Your task to perform on an android device: delete the emails in spam in the gmail app Image 0: 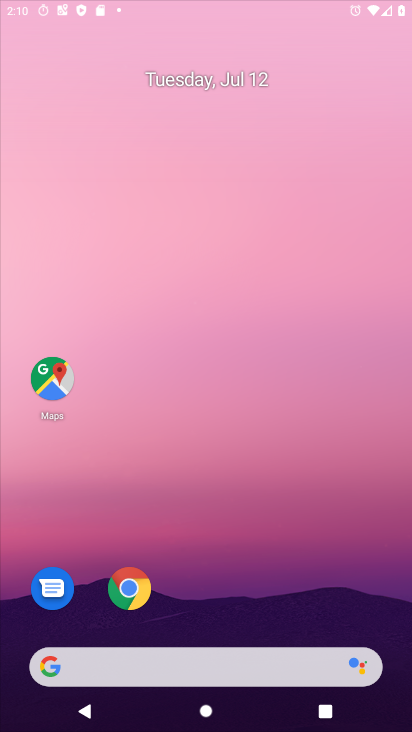
Step 0: drag from (202, 3) to (271, 211)
Your task to perform on an android device: delete the emails in spam in the gmail app Image 1: 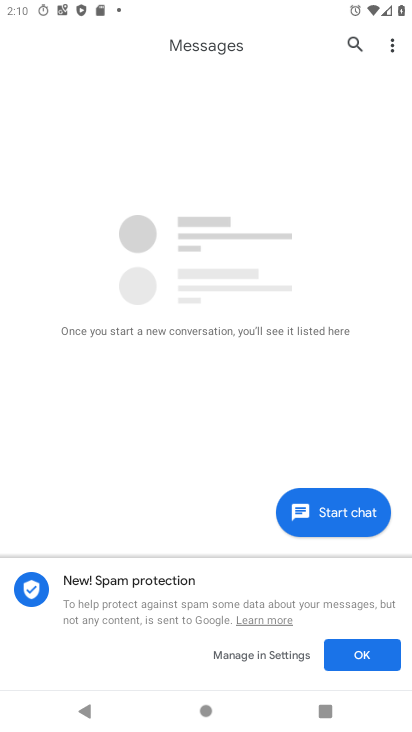
Step 1: press home button
Your task to perform on an android device: delete the emails in spam in the gmail app Image 2: 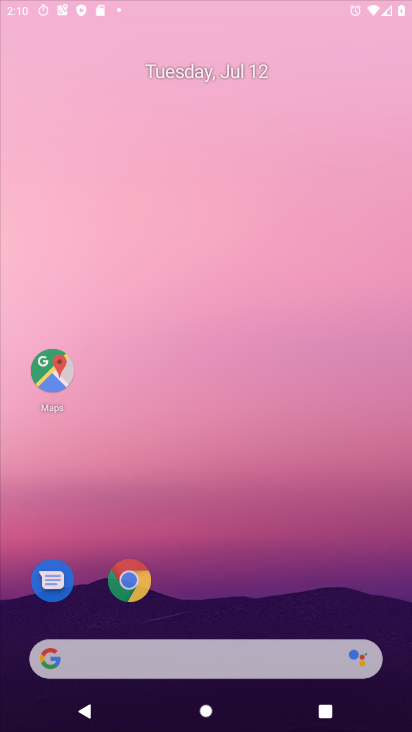
Step 2: drag from (182, 502) to (258, 17)
Your task to perform on an android device: delete the emails in spam in the gmail app Image 3: 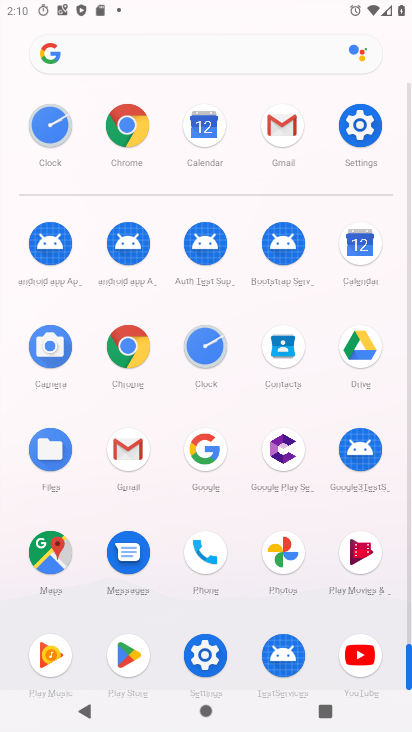
Step 3: drag from (163, 620) to (206, 227)
Your task to perform on an android device: delete the emails in spam in the gmail app Image 4: 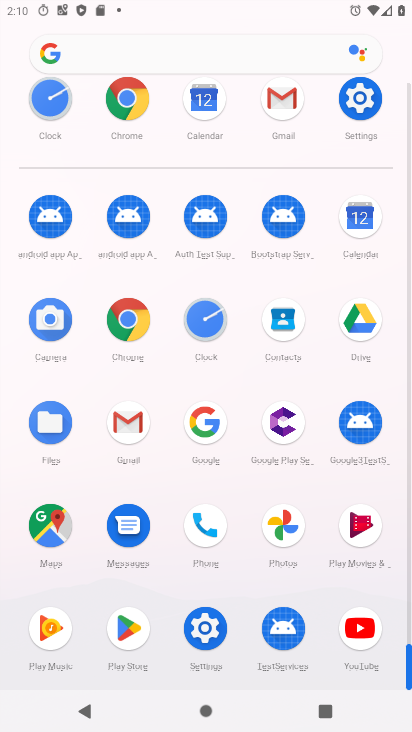
Step 4: click (130, 420)
Your task to perform on an android device: delete the emails in spam in the gmail app Image 5: 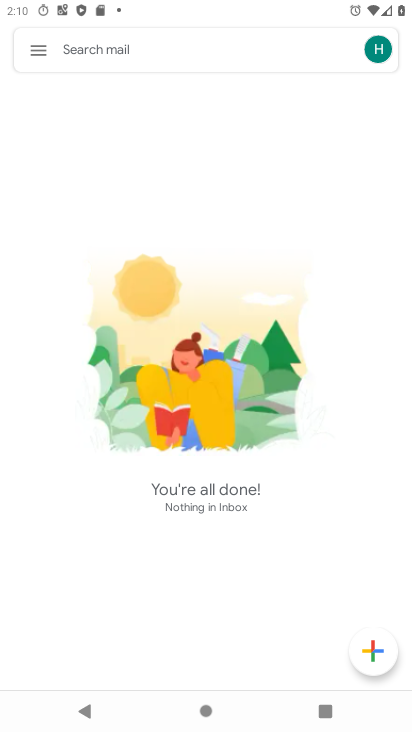
Step 5: drag from (118, 618) to (235, 276)
Your task to perform on an android device: delete the emails in spam in the gmail app Image 6: 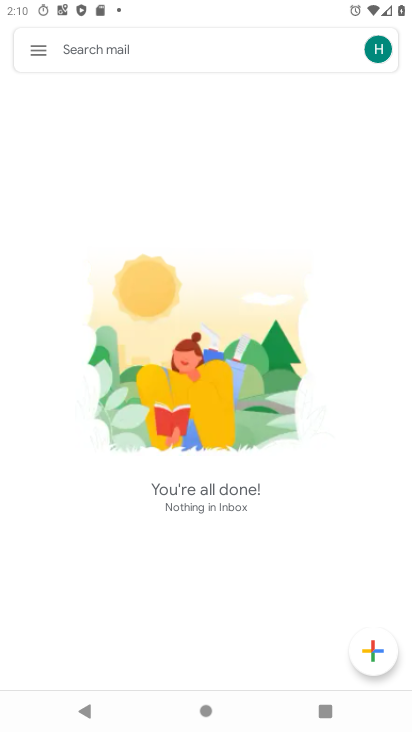
Step 6: click (50, 67)
Your task to perform on an android device: delete the emails in spam in the gmail app Image 7: 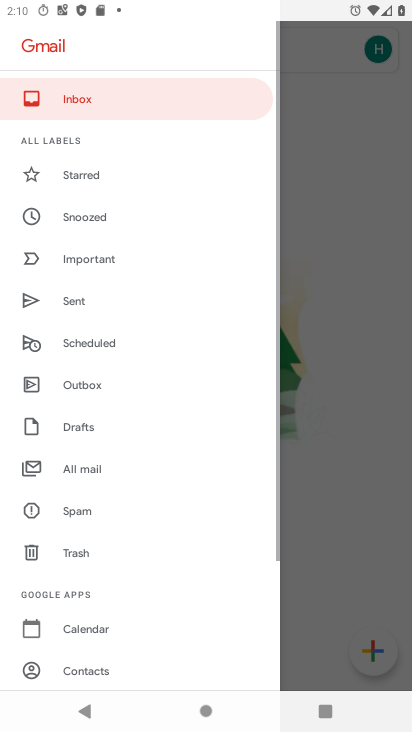
Step 7: drag from (122, 547) to (168, 162)
Your task to perform on an android device: delete the emails in spam in the gmail app Image 8: 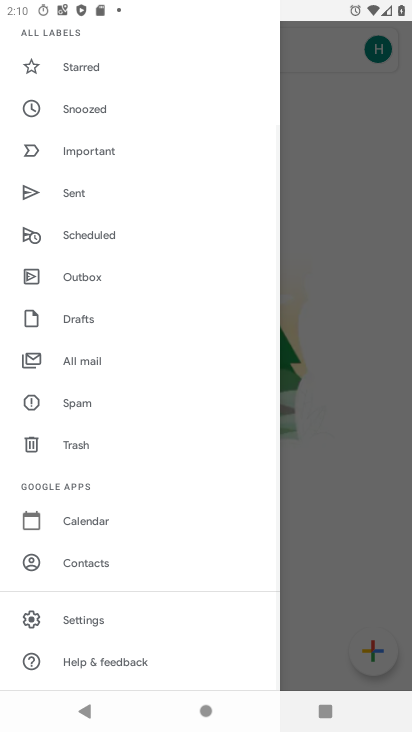
Step 8: click (70, 366)
Your task to perform on an android device: delete the emails in spam in the gmail app Image 9: 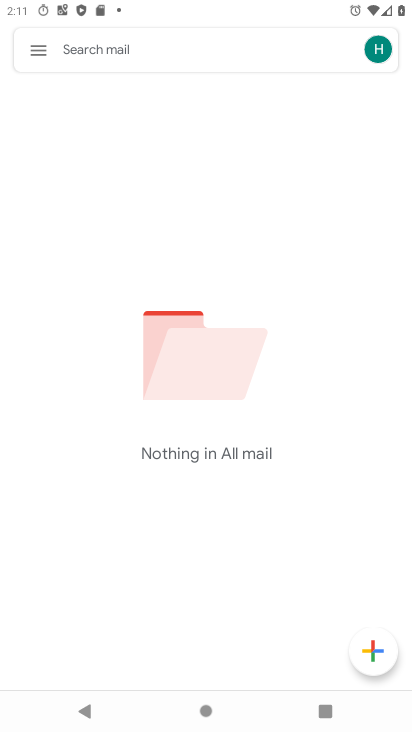
Step 9: drag from (153, 530) to (202, 237)
Your task to perform on an android device: delete the emails in spam in the gmail app Image 10: 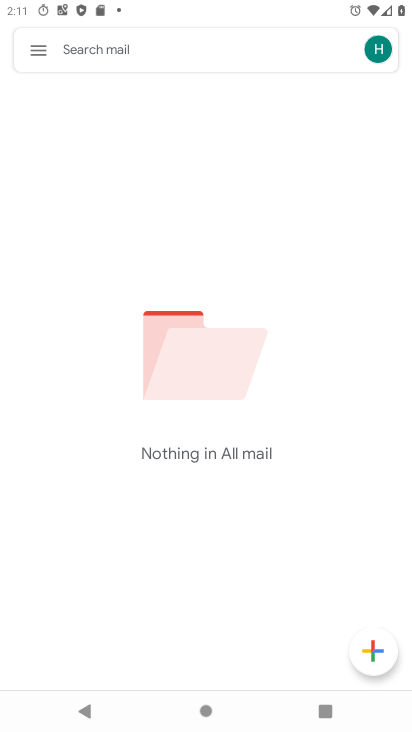
Step 10: drag from (176, 478) to (249, 171)
Your task to perform on an android device: delete the emails in spam in the gmail app Image 11: 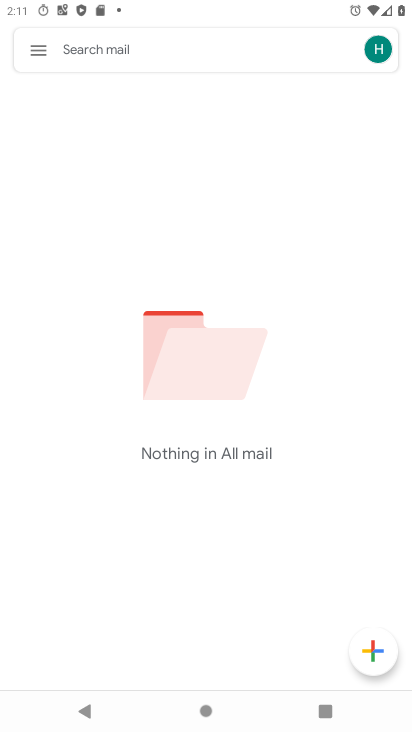
Step 11: click (42, 53)
Your task to perform on an android device: delete the emails in spam in the gmail app Image 12: 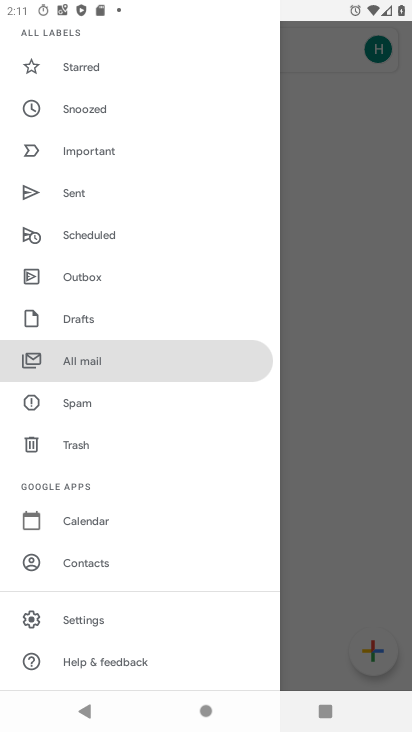
Step 12: drag from (78, 497) to (151, 160)
Your task to perform on an android device: delete the emails in spam in the gmail app Image 13: 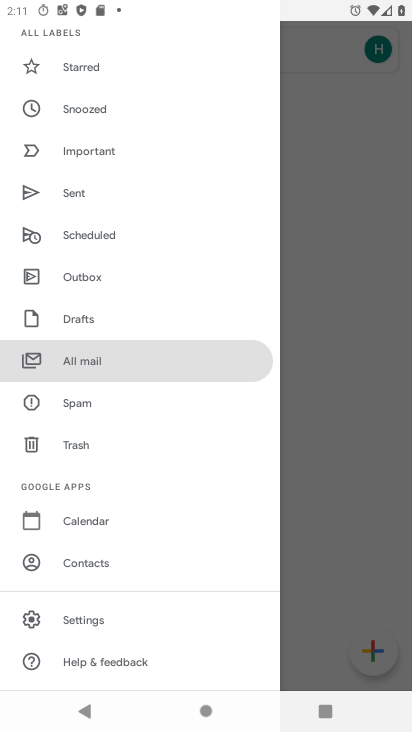
Step 13: click (69, 407)
Your task to perform on an android device: delete the emails in spam in the gmail app Image 14: 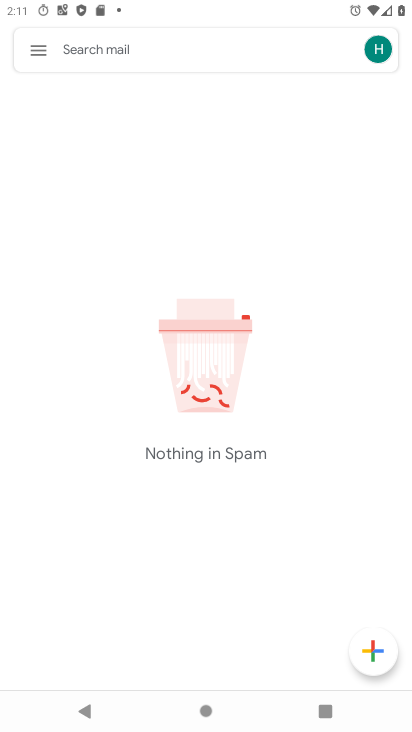
Step 14: task complete